Your task to perform on an android device: stop showing notifications on the lock screen Image 0: 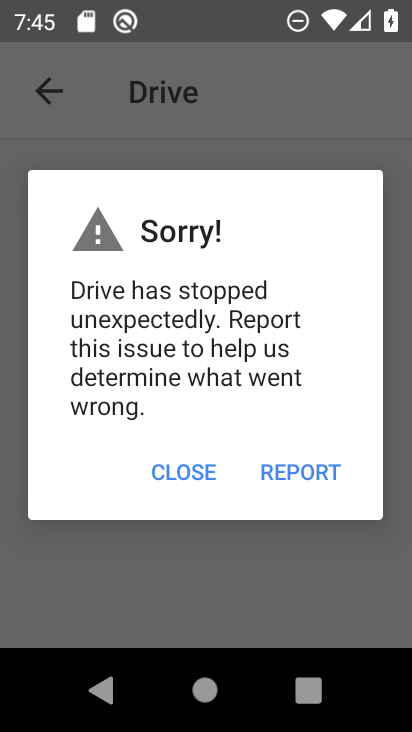
Step 0: press home button
Your task to perform on an android device: stop showing notifications on the lock screen Image 1: 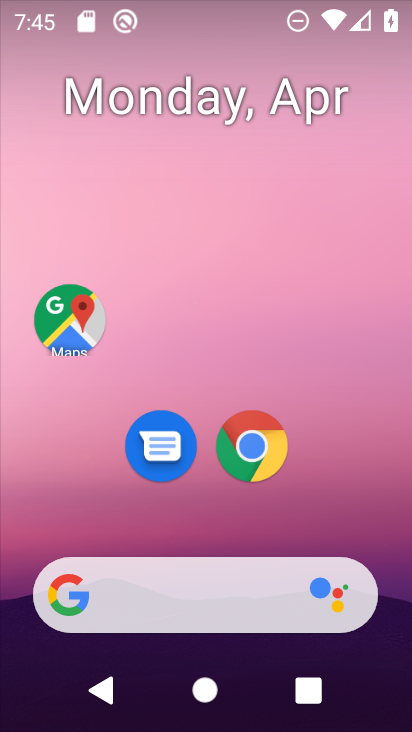
Step 1: drag from (376, 530) to (294, 37)
Your task to perform on an android device: stop showing notifications on the lock screen Image 2: 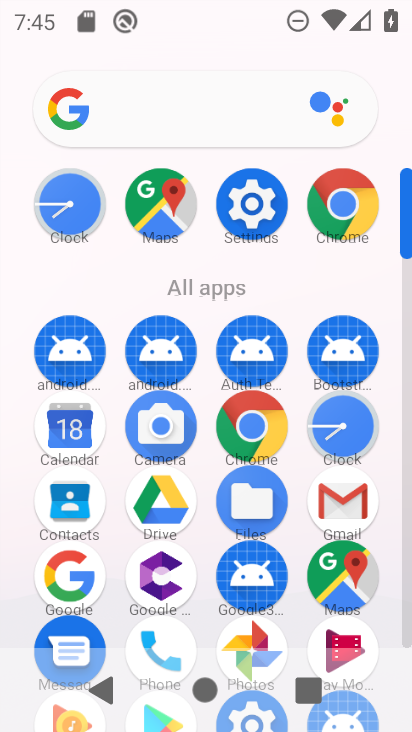
Step 2: click (255, 202)
Your task to perform on an android device: stop showing notifications on the lock screen Image 3: 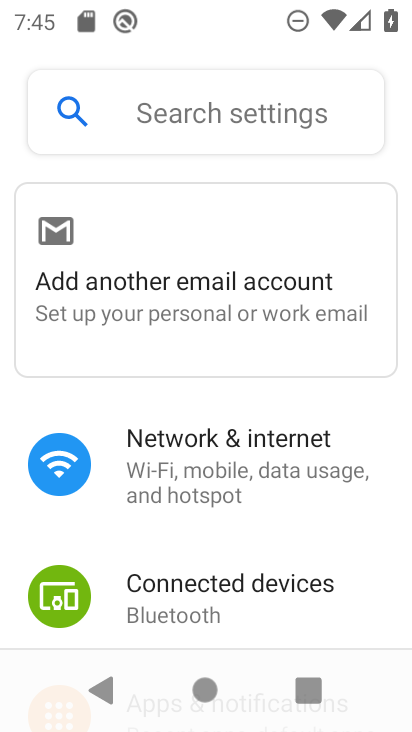
Step 3: drag from (369, 515) to (327, 98)
Your task to perform on an android device: stop showing notifications on the lock screen Image 4: 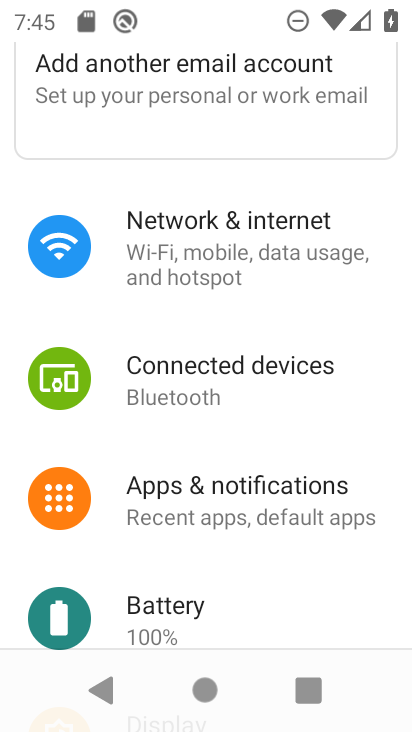
Step 4: drag from (351, 526) to (350, 119)
Your task to perform on an android device: stop showing notifications on the lock screen Image 5: 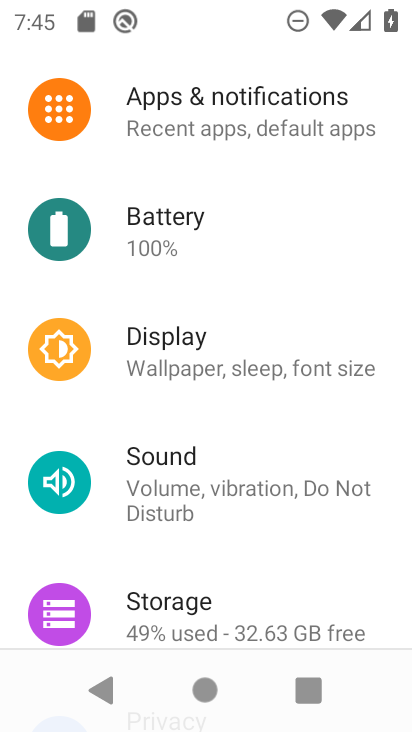
Step 5: click (289, 124)
Your task to perform on an android device: stop showing notifications on the lock screen Image 6: 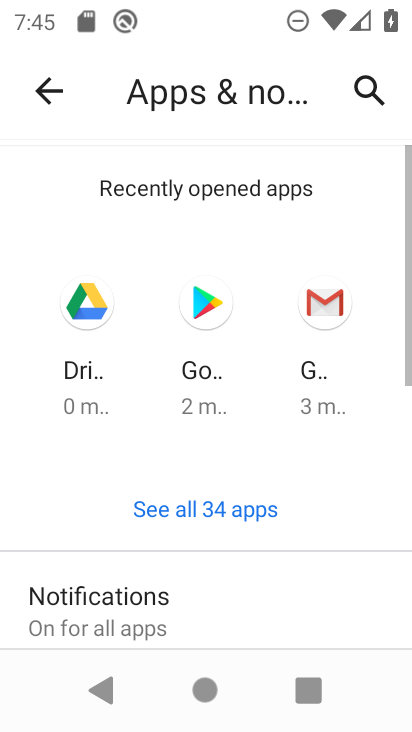
Step 6: drag from (302, 442) to (294, 173)
Your task to perform on an android device: stop showing notifications on the lock screen Image 7: 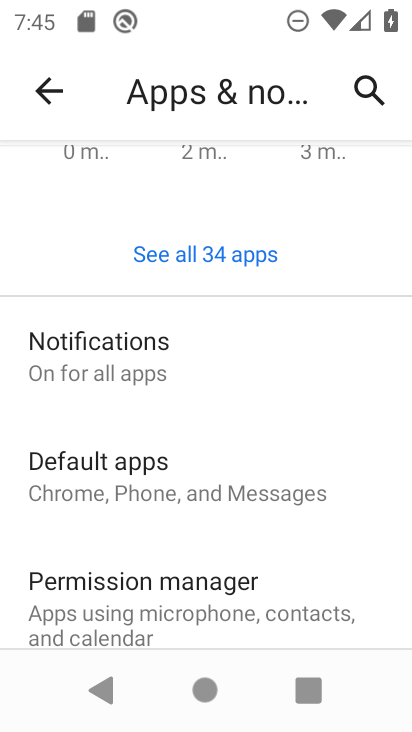
Step 7: click (153, 333)
Your task to perform on an android device: stop showing notifications on the lock screen Image 8: 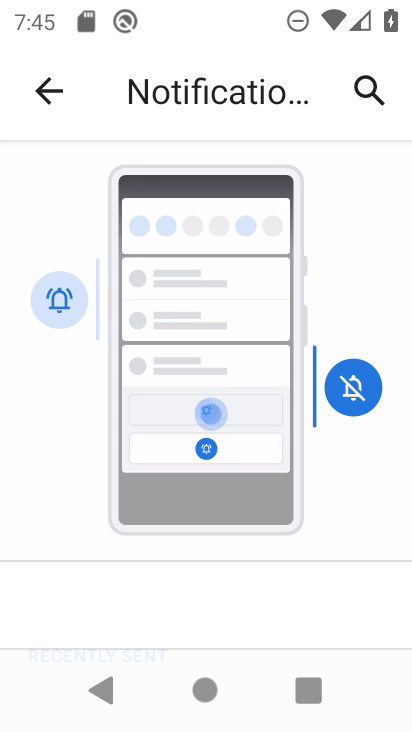
Step 8: drag from (245, 430) to (261, 143)
Your task to perform on an android device: stop showing notifications on the lock screen Image 9: 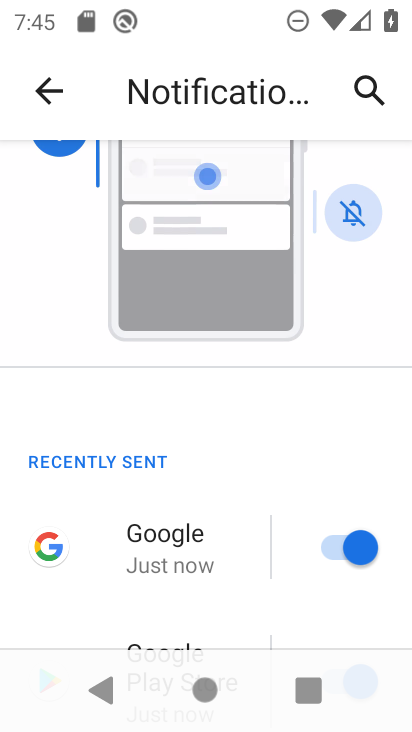
Step 9: drag from (244, 601) to (268, 134)
Your task to perform on an android device: stop showing notifications on the lock screen Image 10: 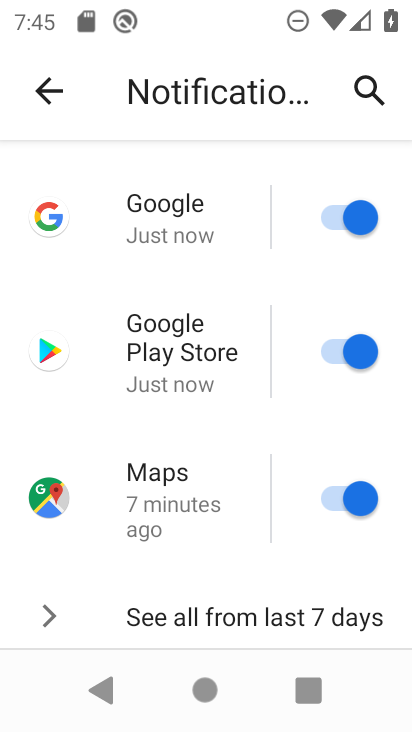
Step 10: drag from (172, 569) to (234, 154)
Your task to perform on an android device: stop showing notifications on the lock screen Image 11: 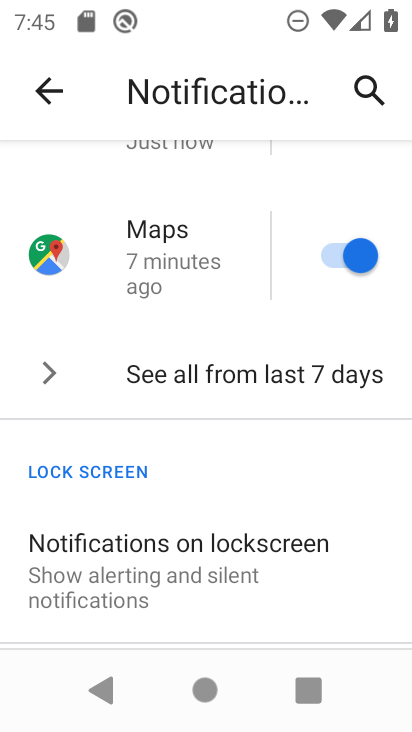
Step 11: drag from (221, 537) to (206, 177)
Your task to perform on an android device: stop showing notifications on the lock screen Image 12: 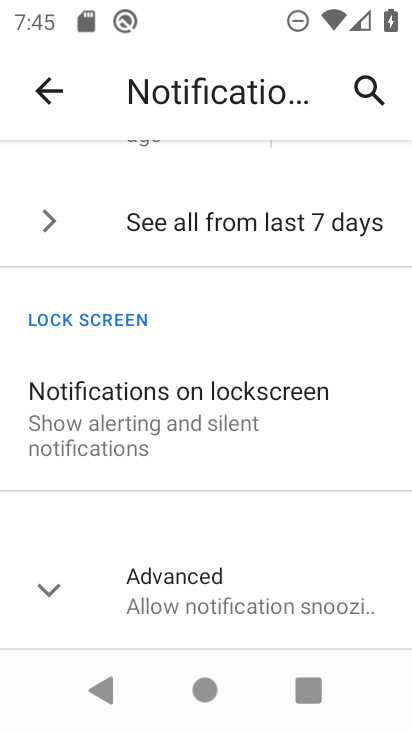
Step 12: click (158, 644)
Your task to perform on an android device: stop showing notifications on the lock screen Image 13: 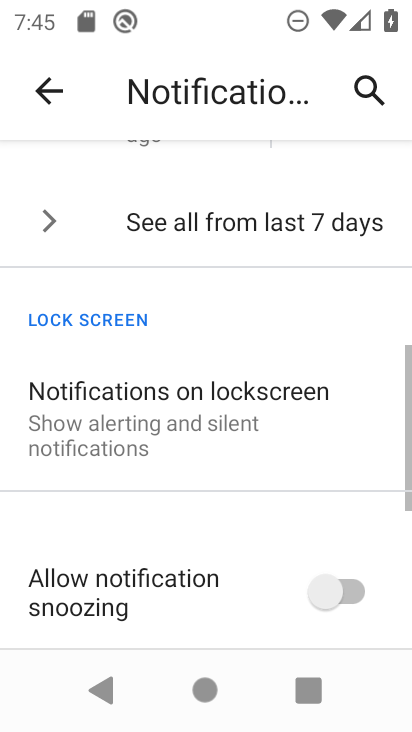
Step 13: drag from (187, 524) to (198, 150)
Your task to perform on an android device: stop showing notifications on the lock screen Image 14: 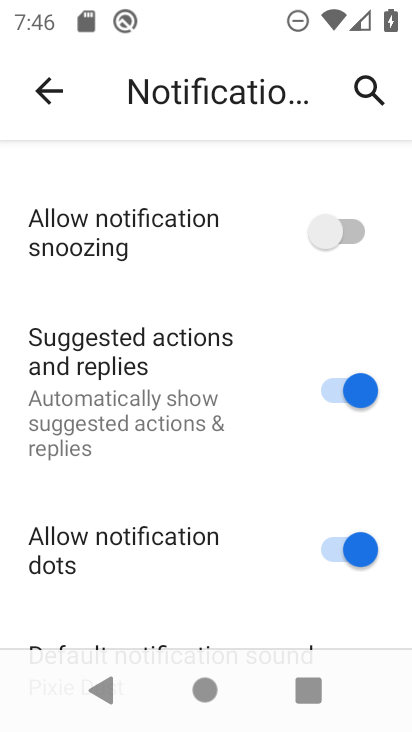
Step 14: drag from (134, 555) to (201, 151)
Your task to perform on an android device: stop showing notifications on the lock screen Image 15: 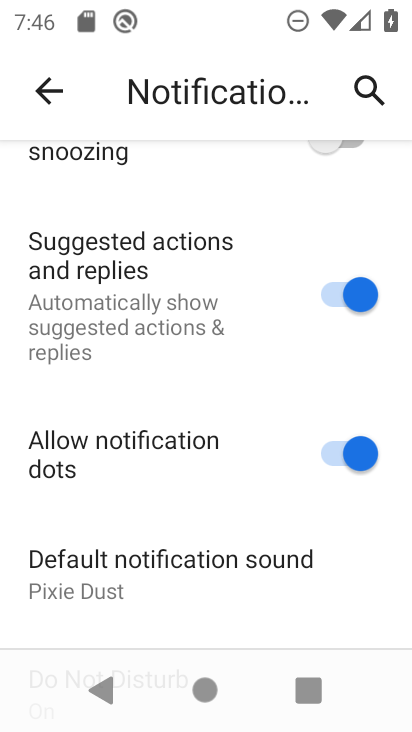
Step 15: drag from (187, 566) to (240, 200)
Your task to perform on an android device: stop showing notifications on the lock screen Image 16: 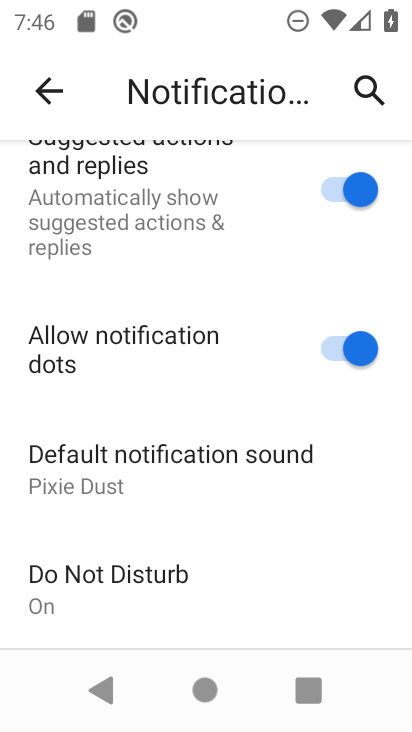
Step 16: drag from (187, 605) to (207, 196)
Your task to perform on an android device: stop showing notifications on the lock screen Image 17: 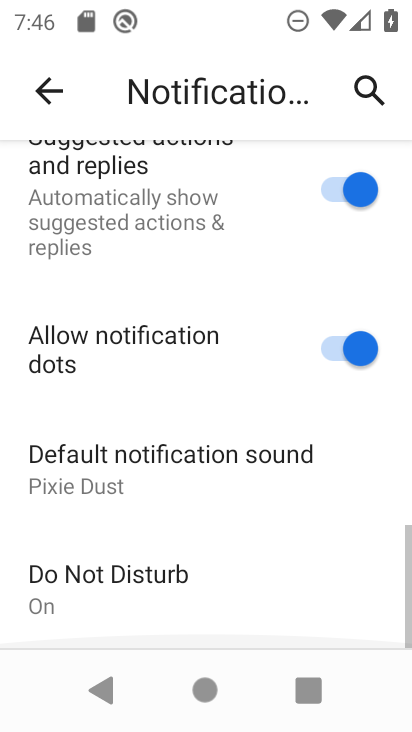
Step 17: drag from (207, 321) to (207, 609)
Your task to perform on an android device: stop showing notifications on the lock screen Image 18: 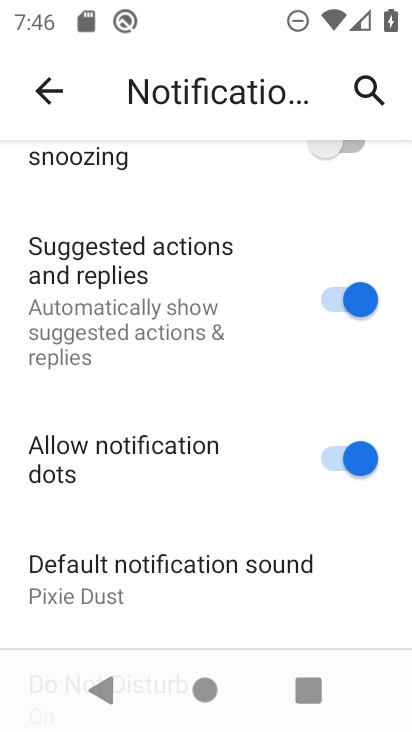
Step 18: drag from (226, 264) to (212, 625)
Your task to perform on an android device: stop showing notifications on the lock screen Image 19: 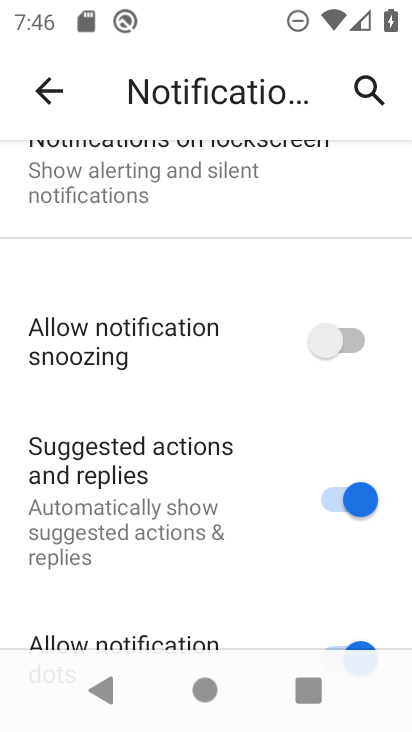
Step 19: drag from (182, 257) to (179, 563)
Your task to perform on an android device: stop showing notifications on the lock screen Image 20: 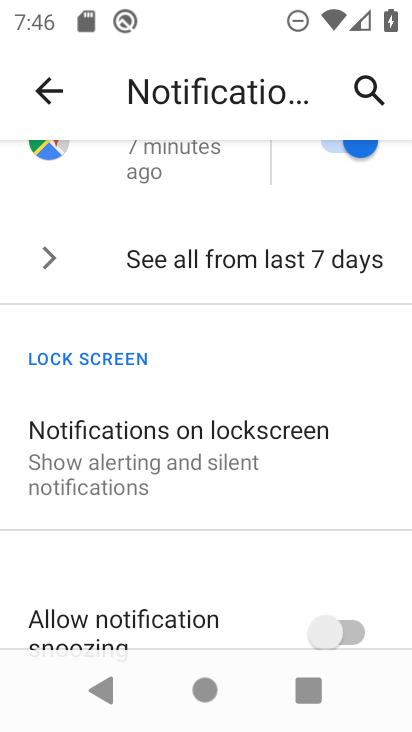
Step 20: click (168, 458)
Your task to perform on an android device: stop showing notifications on the lock screen Image 21: 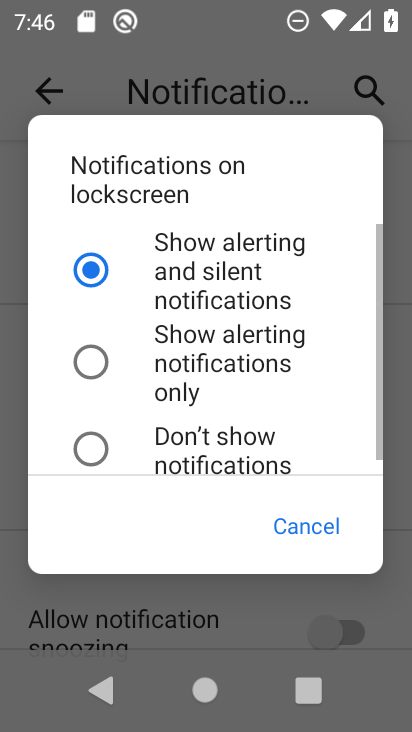
Step 21: click (168, 463)
Your task to perform on an android device: stop showing notifications on the lock screen Image 22: 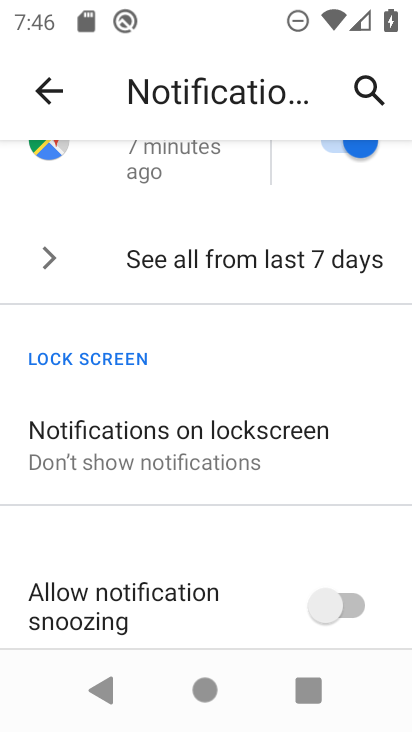
Step 22: task complete